Your task to perform on an android device: turn off airplane mode Image 0: 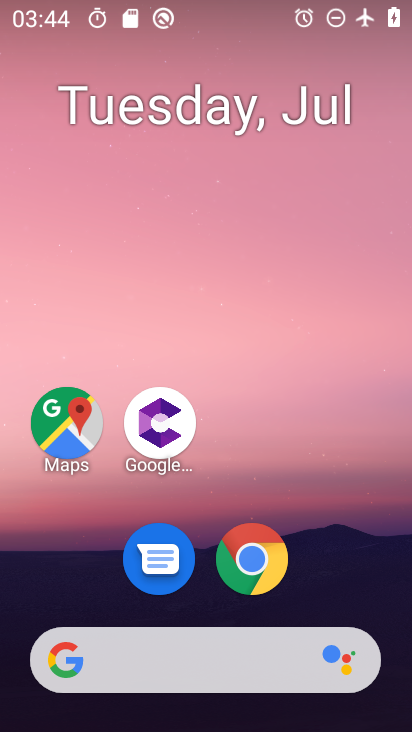
Step 0: drag from (342, 572) to (341, 133)
Your task to perform on an android device: turn off airplane mode Image 1: 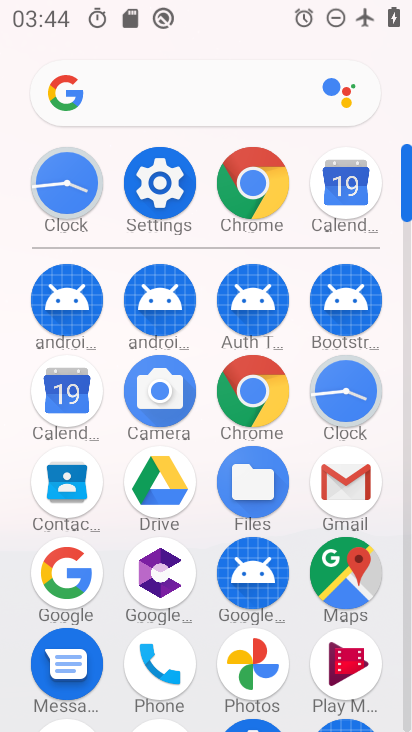
Step 1: click (167, 195)
Your task to perform on an android device: turn off airplane mode Image 2: 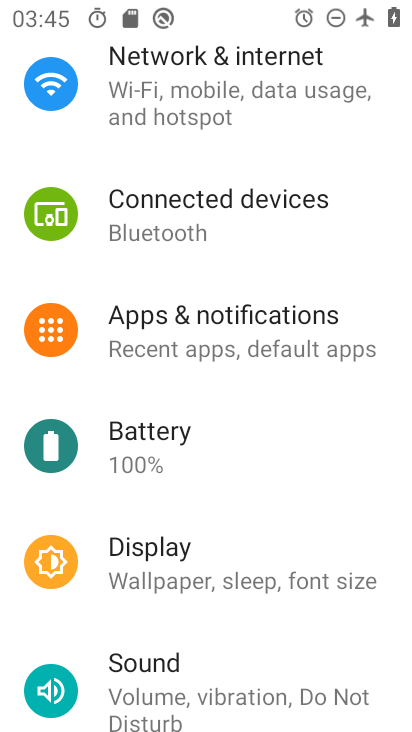
Step 2: drag from (388, 175) to (386, 291)
Your task to perform on an android device: turn off airplane mode Image 3: 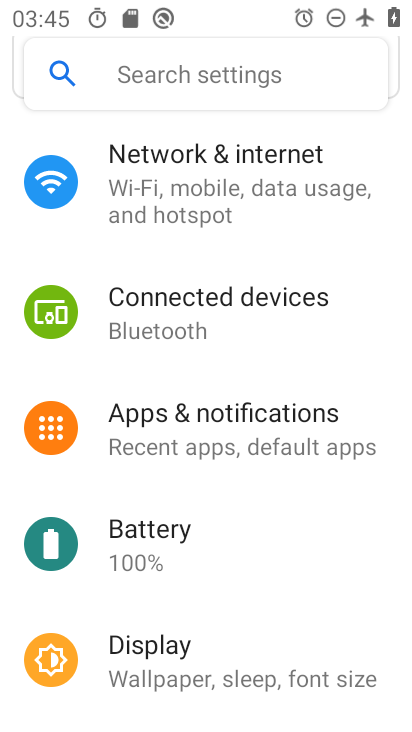
Step 3: drag from (381, 150) to (383, 347)
Your task to perform on an android device: turn off airplane mode Image 4: 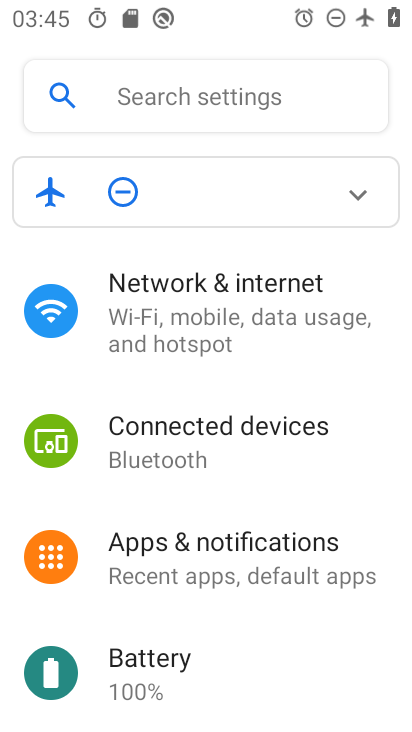
Step 4: click (306, 325)
Your task to perform on an android device: turn off airplane mode Image 5: 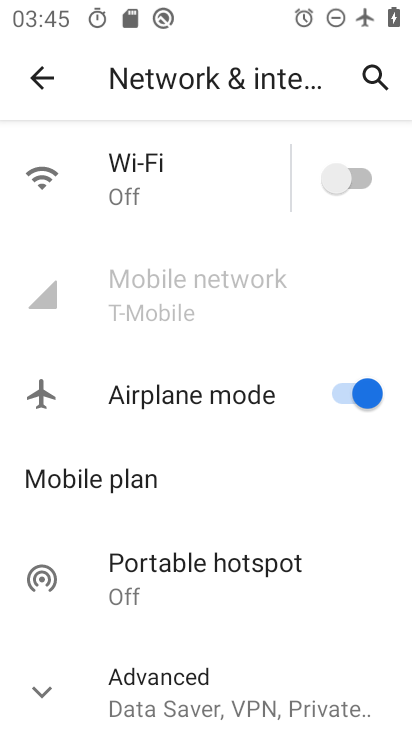
Step 5: task complete